Your task to perform on an android device: open wifi settings Image 0: 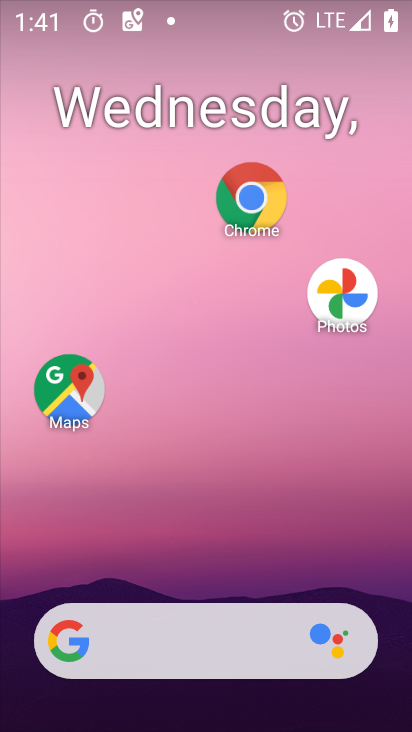
Step 0: drag from (214, 669) to (262, 162)
Your task to perform on an android device: open wifi settings Image 1: 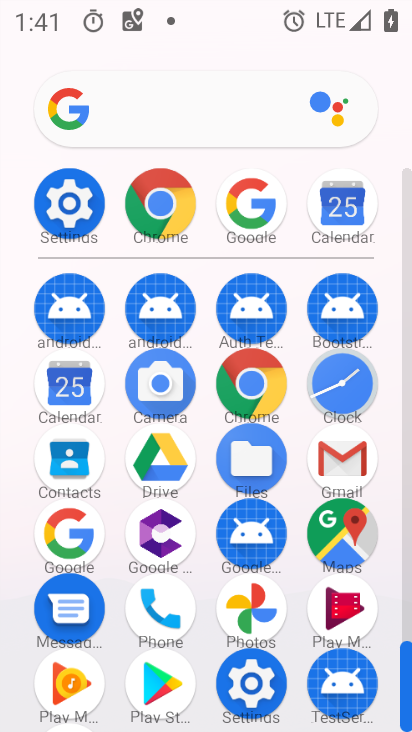
Step 1: click (88, 226)
Your task to perform on an android device: open wifi settings Image 2: 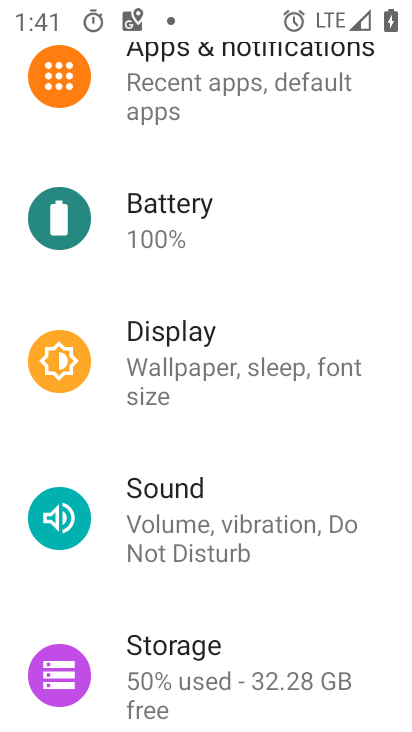
Step 2: drag from (245, 228) to (242, 571)
Your task to perform on an android device: open wifi settings Image 3: 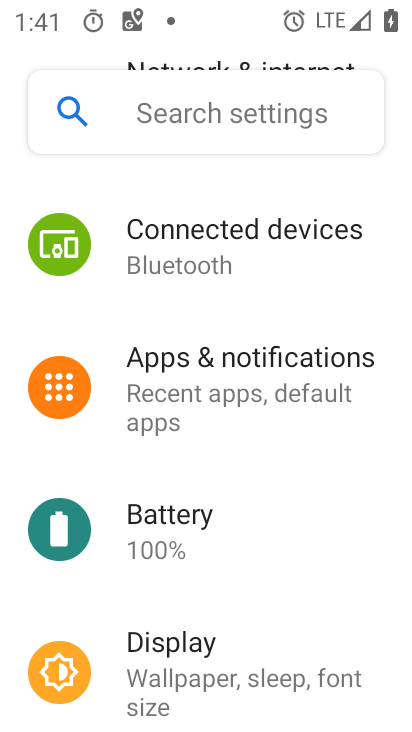
Step 3: drag from (224, 277) to (225, 546)
Your task to perform on an android device: open wifi settings Image 4: 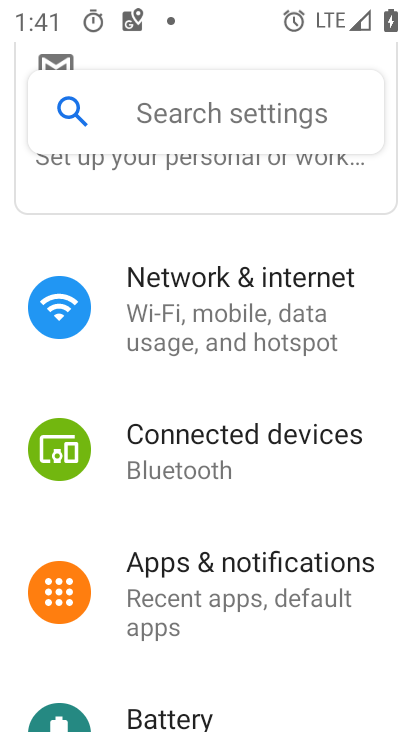
Step 4: click (235, 302)
Your task to perform on an android device: open wifi settings Image 5: 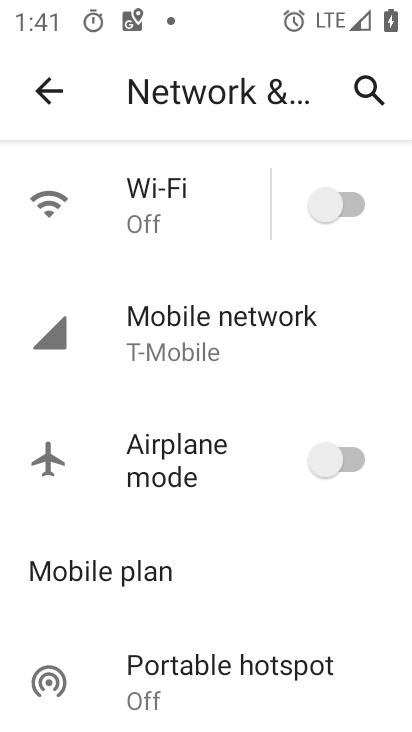
Step 5: click (196, 212)
Your task to perform on an android device: open wifi settings Image 6: 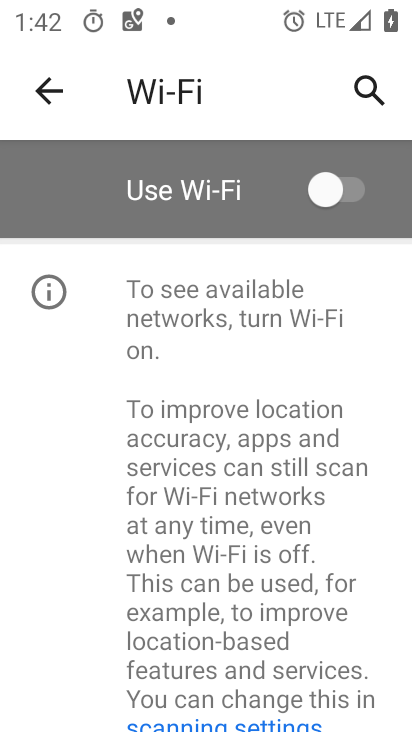
Step 6: task complete